Your task to perform on an android device: open chrome privacy settings Image 0: 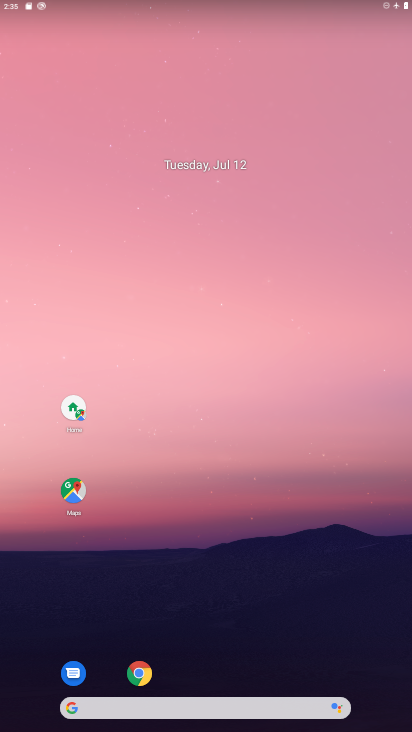
Step 0: drag from (183, 671) to (171, 209)
Your task to perform on an android device: open chrome privacy settings Image 1: 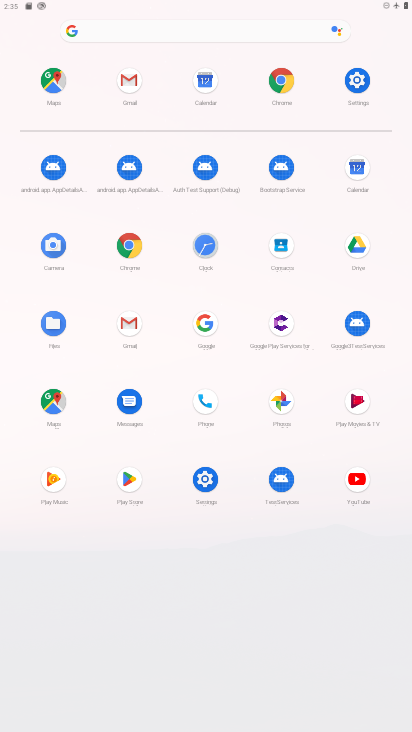
Step 1: click (278, 74)
Your task to perform on an android device: open chrome privacy settings Image 2: 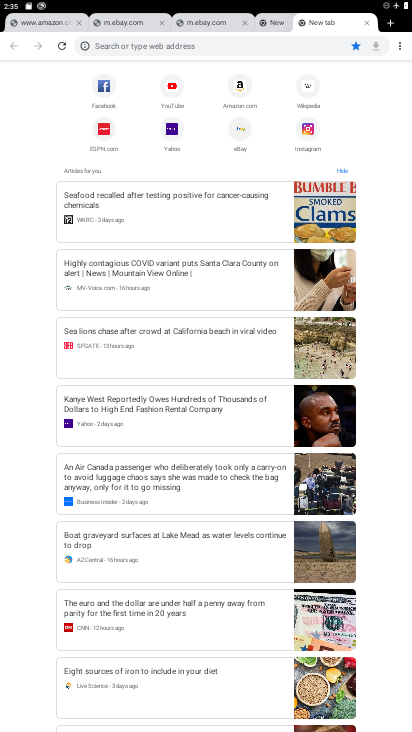
Step 2: click (402, 49)
Your task to perform on an android device: open chrome privacy settings Image 3: 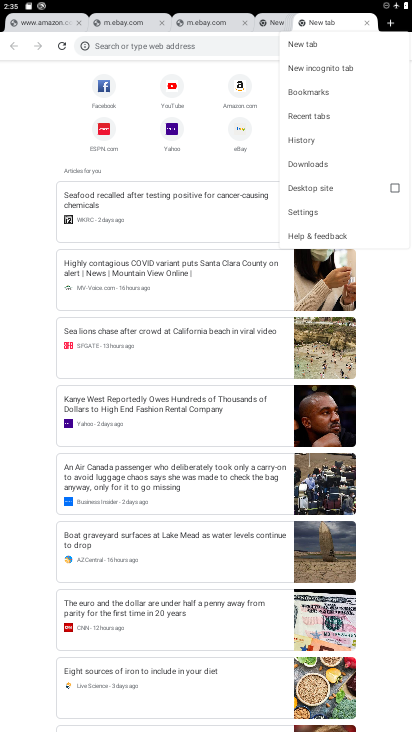
Step 3: click (317, 211)
Your task to perform on an android device: open chrome privacy settings Image 4: 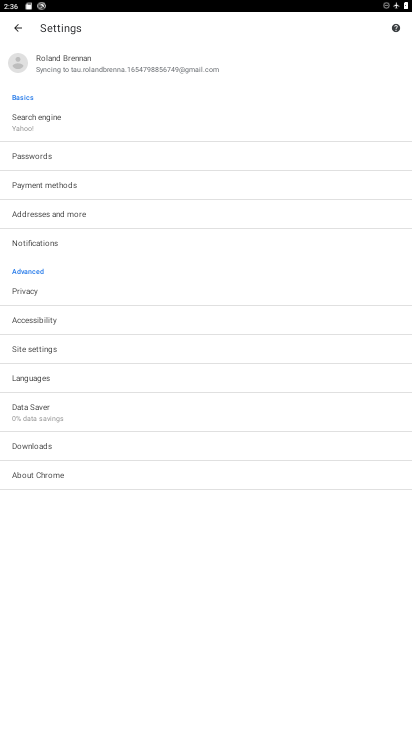
Step 4: click (61, 289)
Your task to perform on an android device: open chrome privacy settings Image 5: 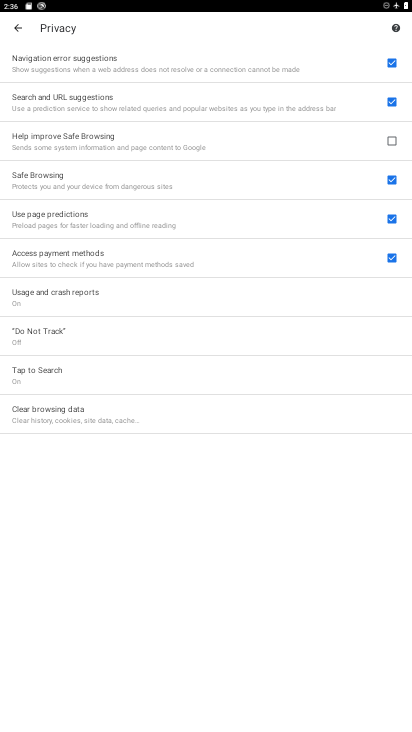
Step 5: task complete